Your task to perform on an android device: Open eBay Image 0: 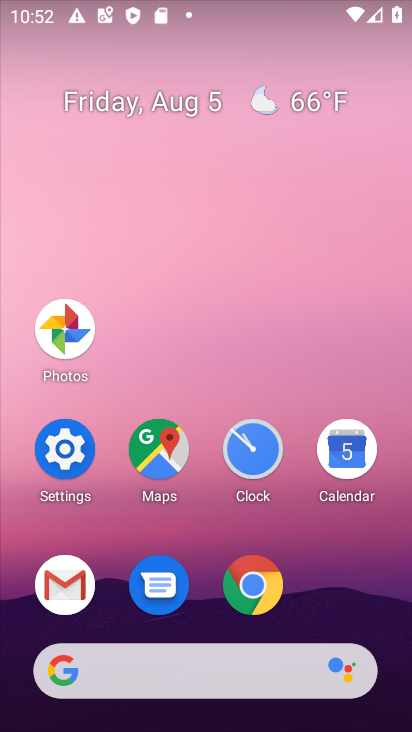
Step 0: click (261, 585)
Your task to perform on an android device: Open eBay Image 1: 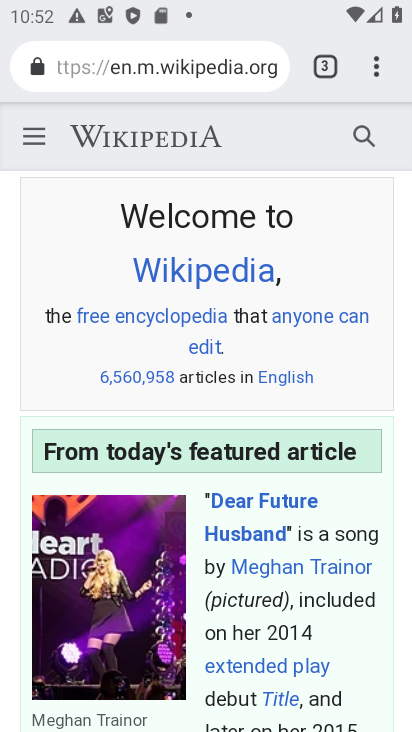
Step 1: click (378, 66)
Your task to perform on an android device: Open eBay Image 2: 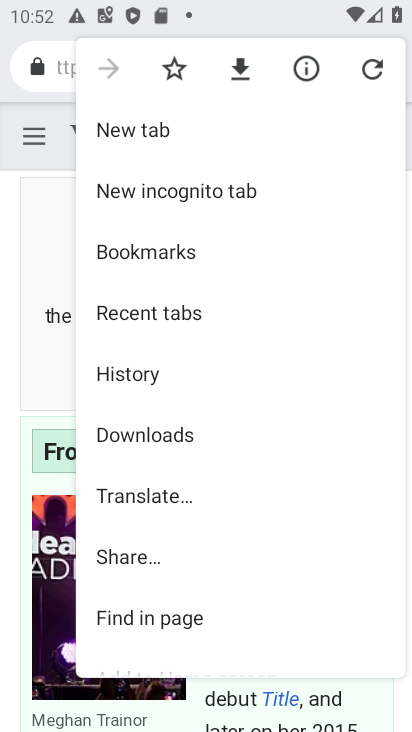
Step 2: click (162, 130)
Your task to perform on an android device: Open eBay Image 3: 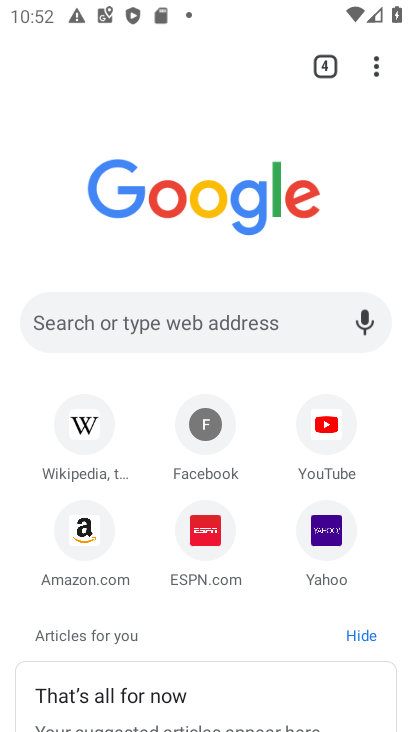
Step 3: click (185, 315)
Your task to perform on an android device: Open eBay Image 4: 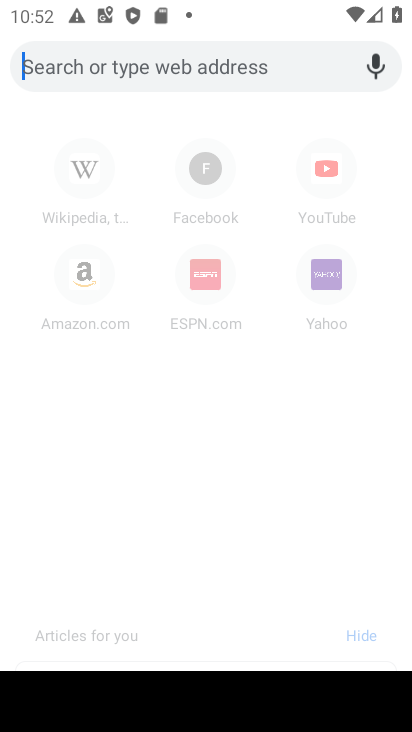
Step 4: type "ebay"
Your task to perform on an android device: Open eBay Image 5: 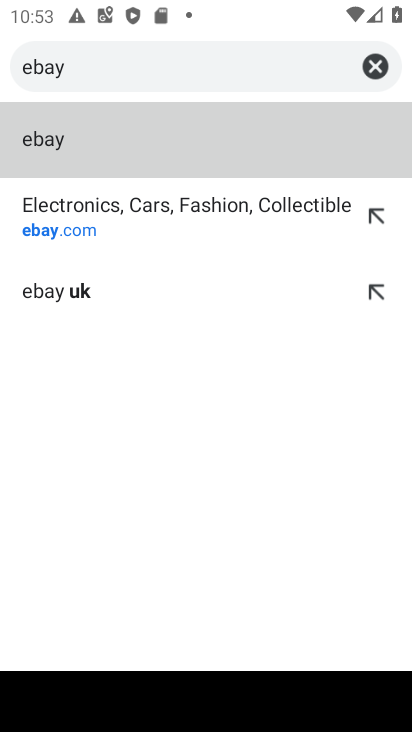
Step 5: click (148, 200)
Your task to perform on an android device: Open eBay Image 6: 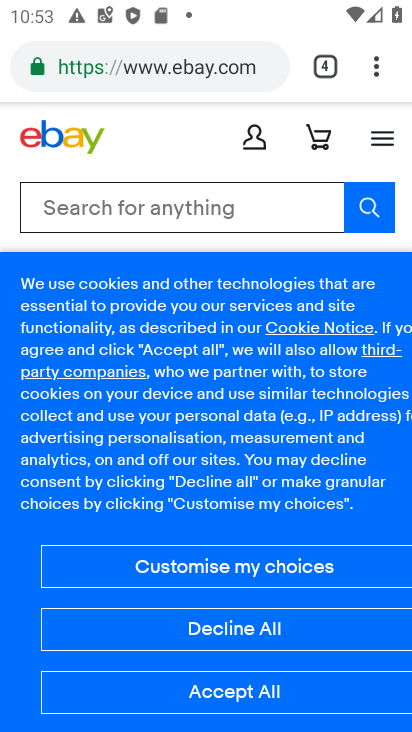
Step 6: task complete